Your task to perform on an android device: Do I have any events today? Image 0: 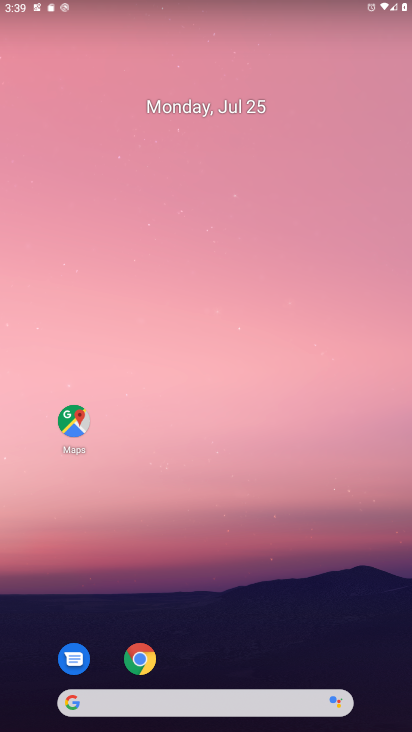
Step 0: drag from (196, 613) to (186, 20)
Your task to perform on an android device: Do I have any events today? Image 1: 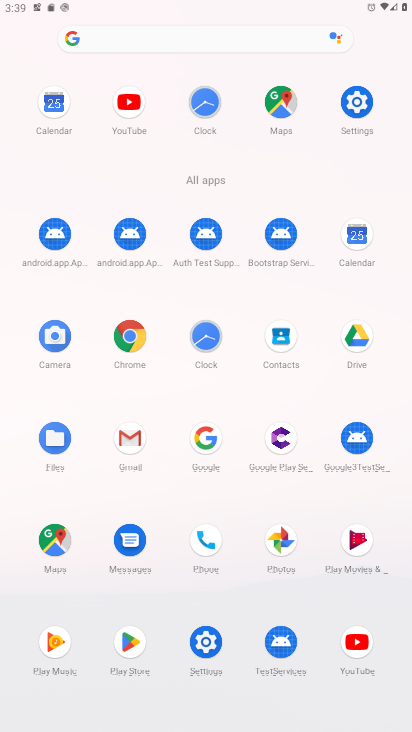
Step 1: click (358, 258)
Your task to perform on an android device: Do I have any events today? Image 2: 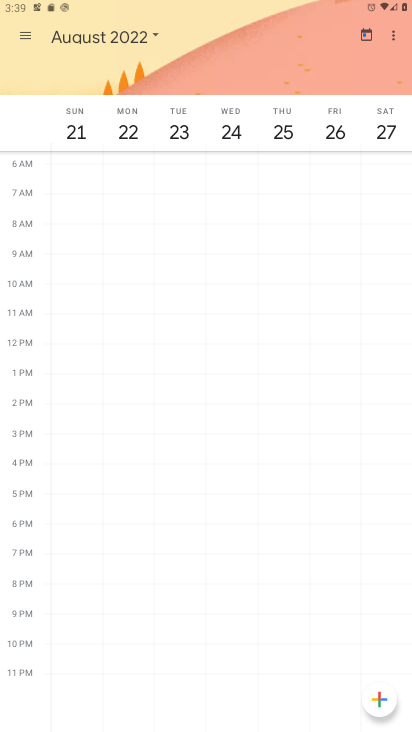
Step 2: click (76, 38)
Your task to perform on an android device: Do I have any events today? Image 3: 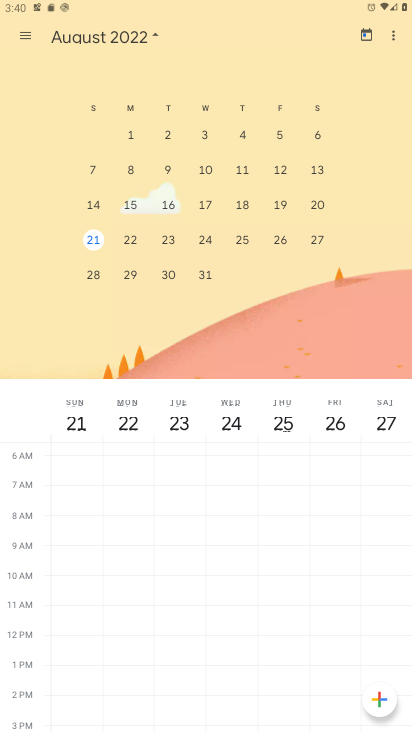
Step 3: drag from (118, 197) to (363, 182)
Your task to perform on an android device: Do I have any events today? Image 4: 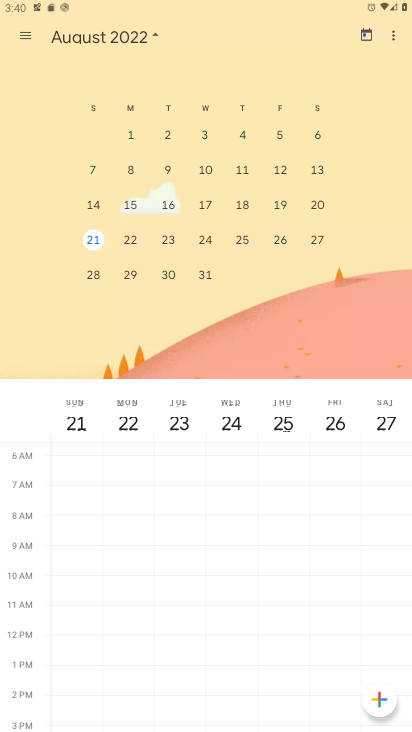
Step 4: drag from (87, 198) to (356, 176)
Your task to perform on an android device: Do I have any events today? Image 5: 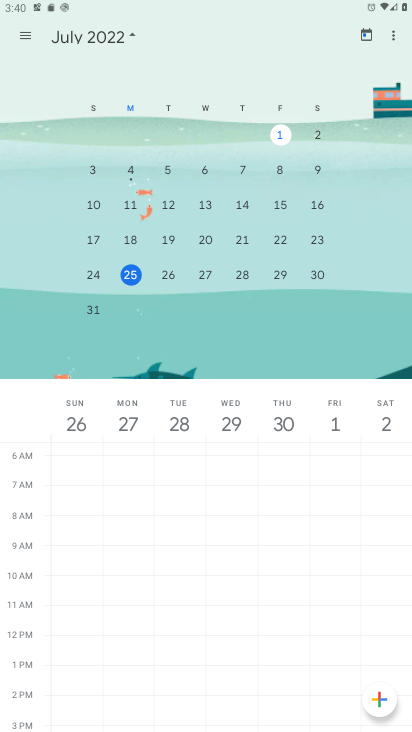
Step 5: click (126, 272)
Your task to perform on an android device: Do I have any events today? Image 6: 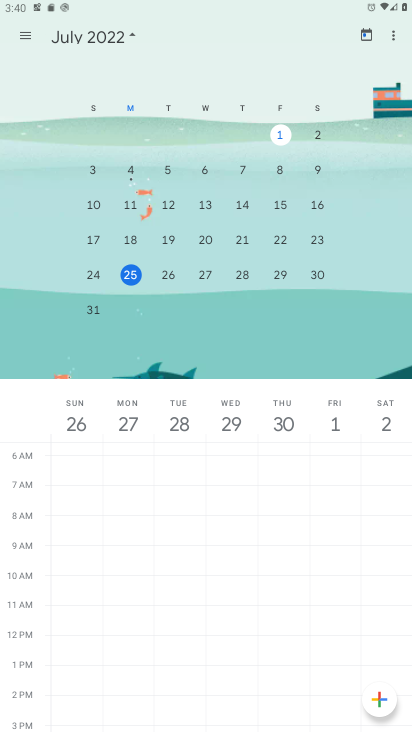
Step 6: click (126, 272)
Your task to perform on an android device: Do I have any events today? Image 7: 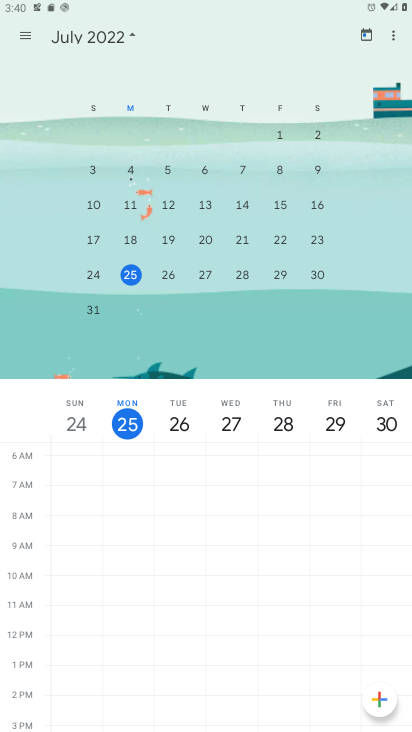
Step 7: task complete